Your task to perform on an android device: change your default location settings in chrome Image 0: 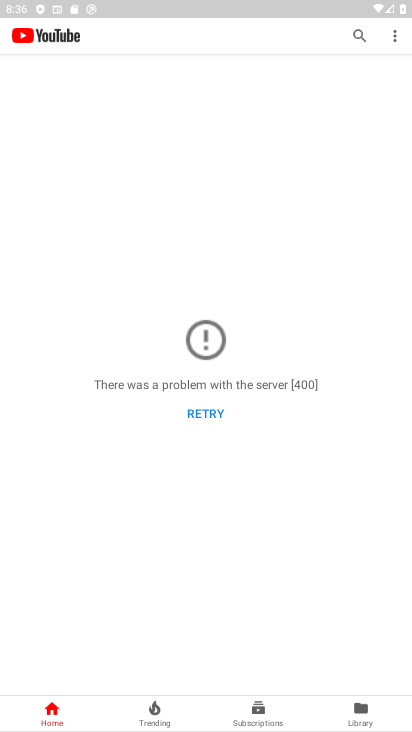
Step 0: press home button
Your task to perform on an android device: change your default location settings in chrome Image 1: 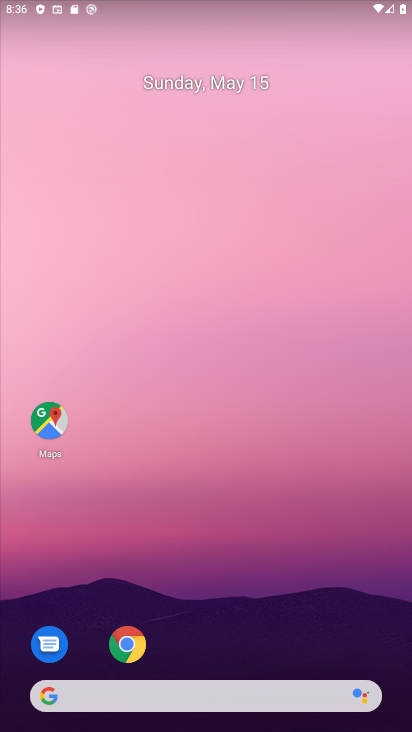
Step 1: click (136, 635)
Your task to perform on an android device: change your default location settings in chrome Image 2: 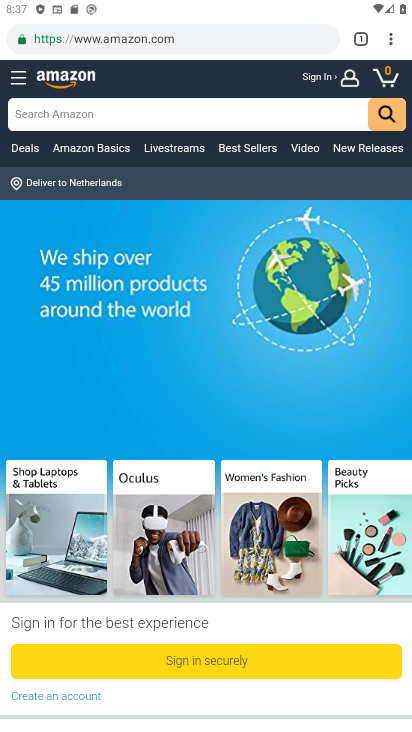
Step 2: click (388, 43)
Your task to perform on an android device: change your default location settings in chrome Image 3: 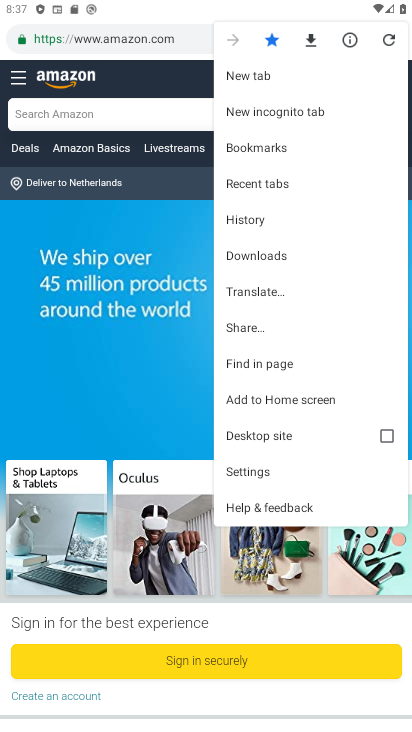
Step 3: click (260, 467)
Your task to perform on an android device: change your default location settings in chrome Image 4: 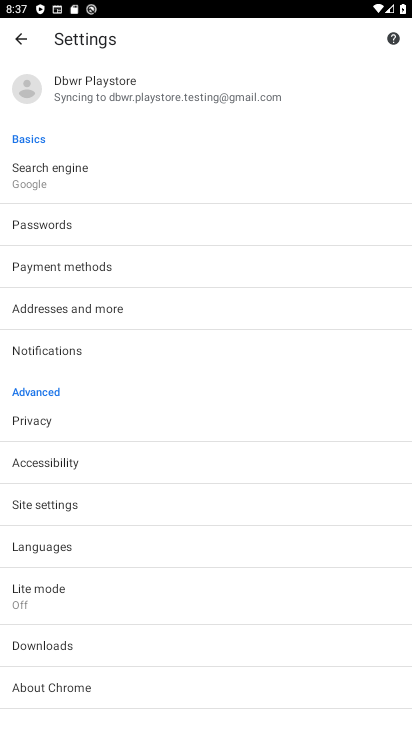
Step 4: drag from (190, 552) to (172, 159)
Your task to perform on an android device: change your default location settings in chrome Image 5: 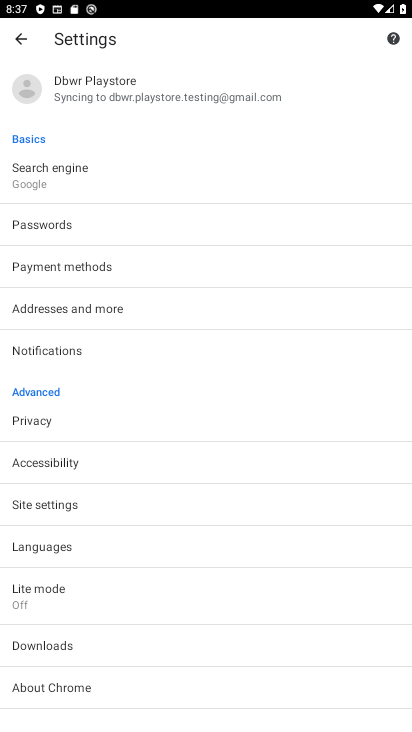
Step 5: click (21, 500)
Your task to perform on an android device: change your default location settings in chrome Image 6: 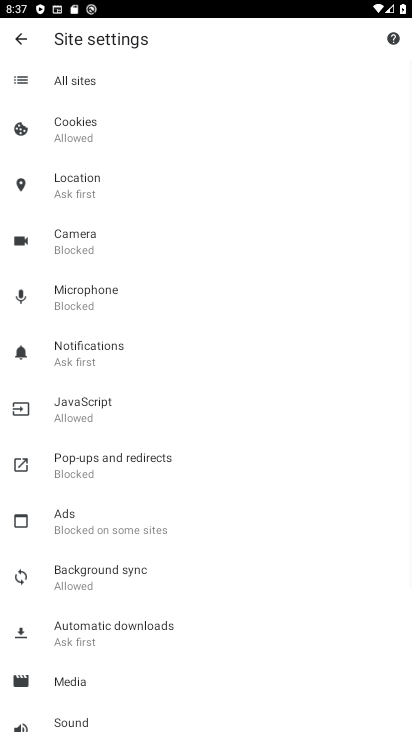
Step 6: click (76, 188)
Your task to perform on an android device: change your default location settings in chrome Image 7: 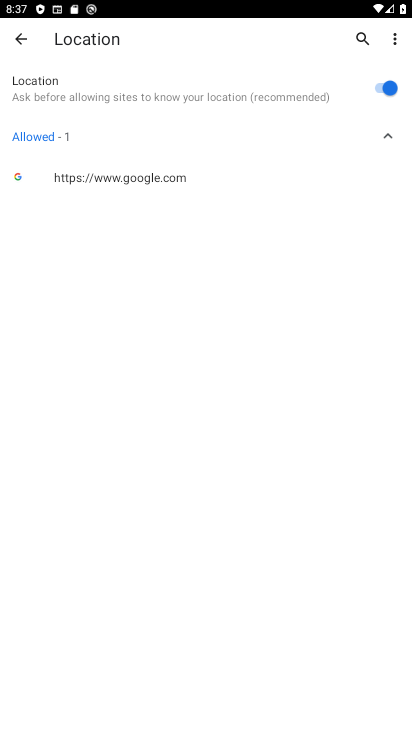
Step 7: click (389, 82)
Your task to perform on an android device: change your default location settings in chrome Image 8: 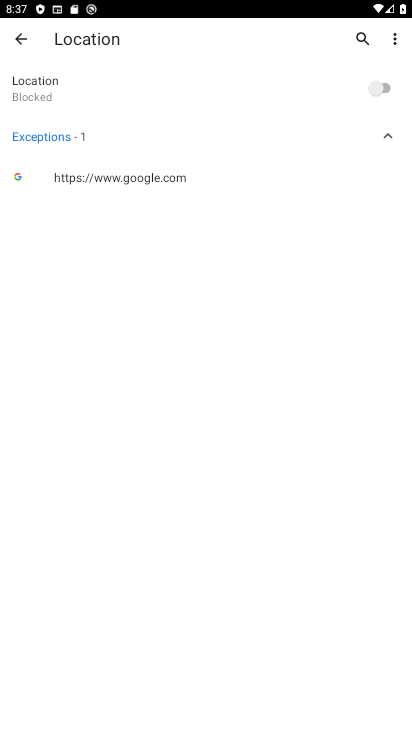
Step 8: task complete